Your task to perform on an android device: toggle improve location accuracy Image 0: 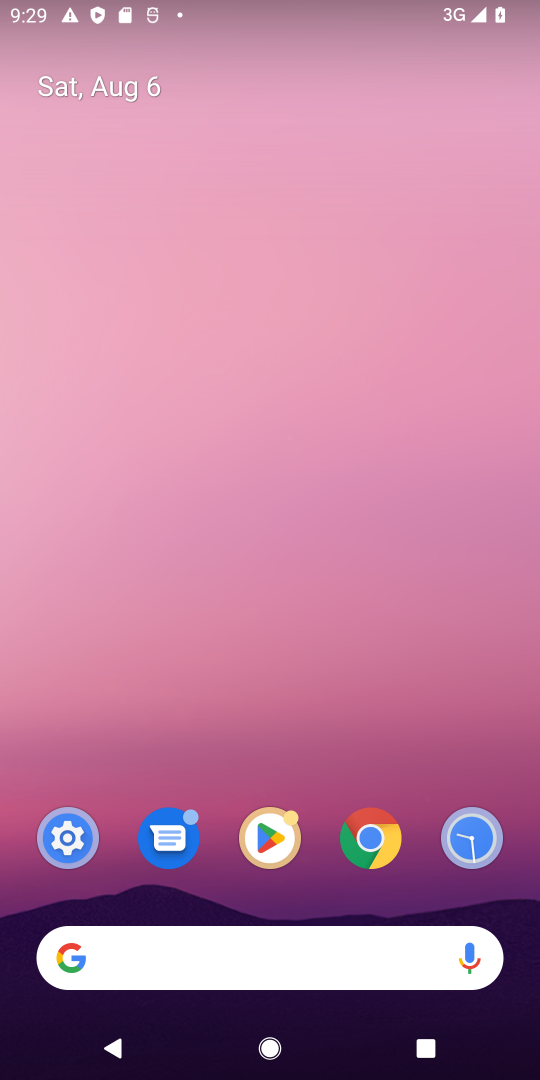
Step 0: drag from (231, 977) to (154, 164)
Your task to perform on an android device: toggle improve location accuracy Image 1: 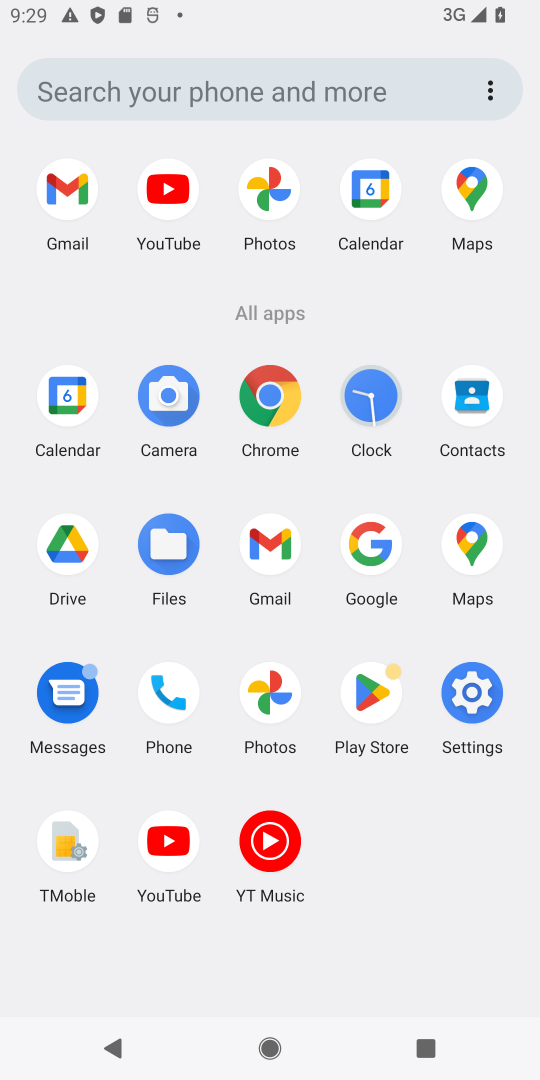
Step 1: click (456, 701)
Your task to perform on an android device: toggle improve location accuracy Image 2: 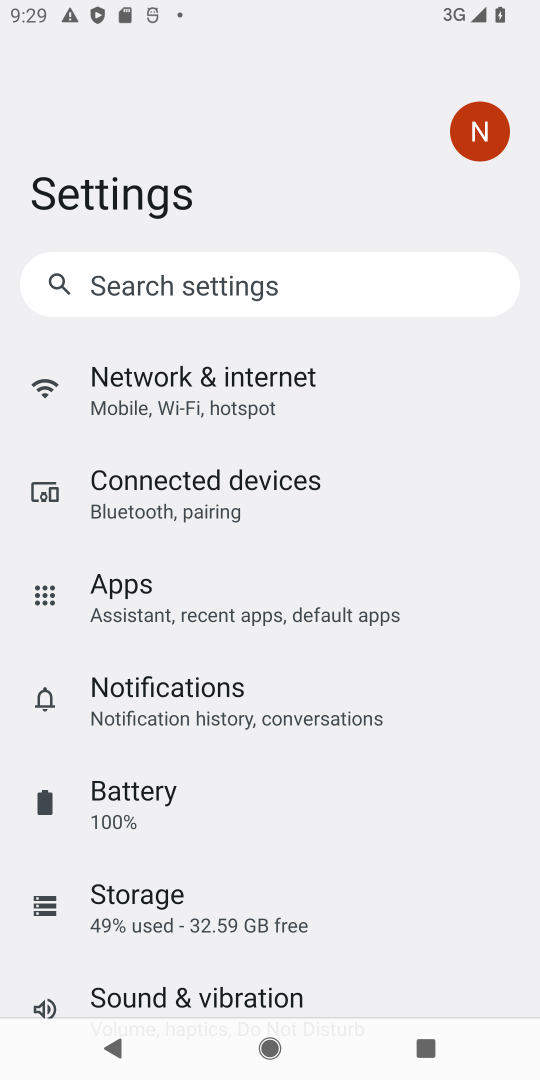
Step 2: drag from (239, 791) to (215, 290)
Your task to perform on an android device: toggle improve location accuracy Image 3: 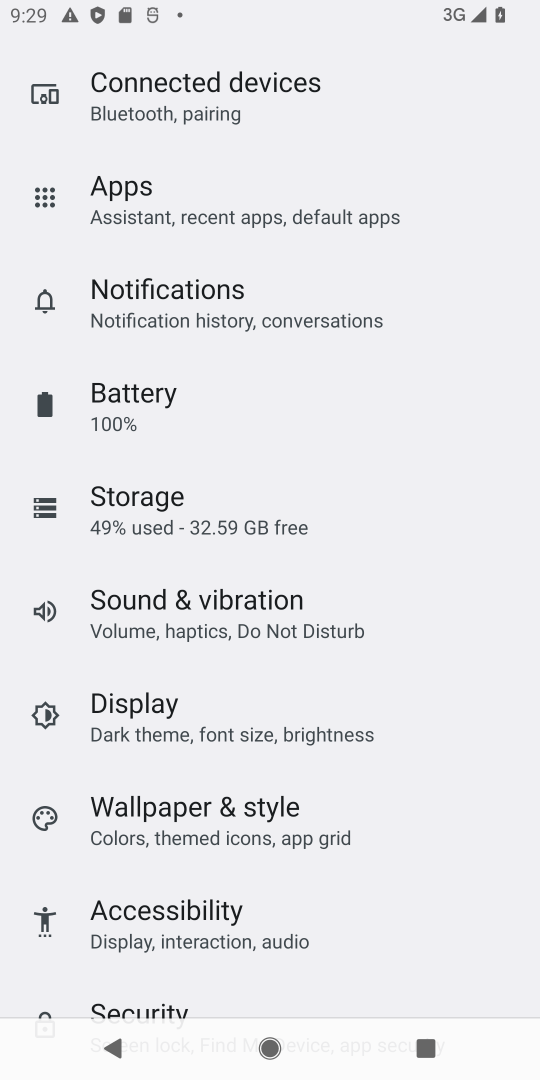
Step 3: drag from (171, 797) to (222, 325)
Your task to perform on an android device: toggle improve location accuracy Image 4: 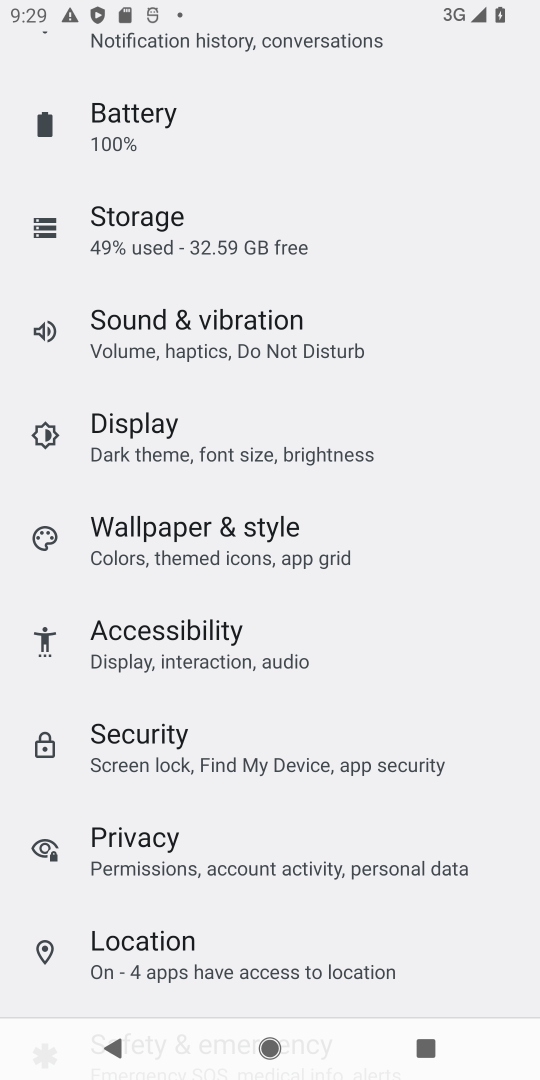
Step 4: click (152, 928)
Your task to perform on an android device: toggle improve location accuracy Image 5: 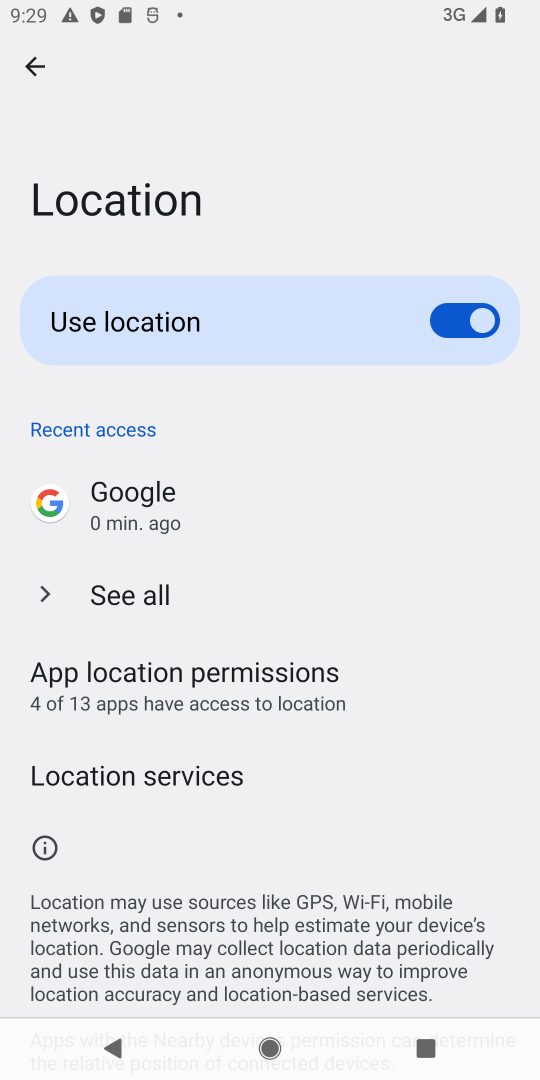
Step 5: drag from (142, 919) to (213, 397)
Your task to perform on an android device: toggle improve location accuracy Image 6: 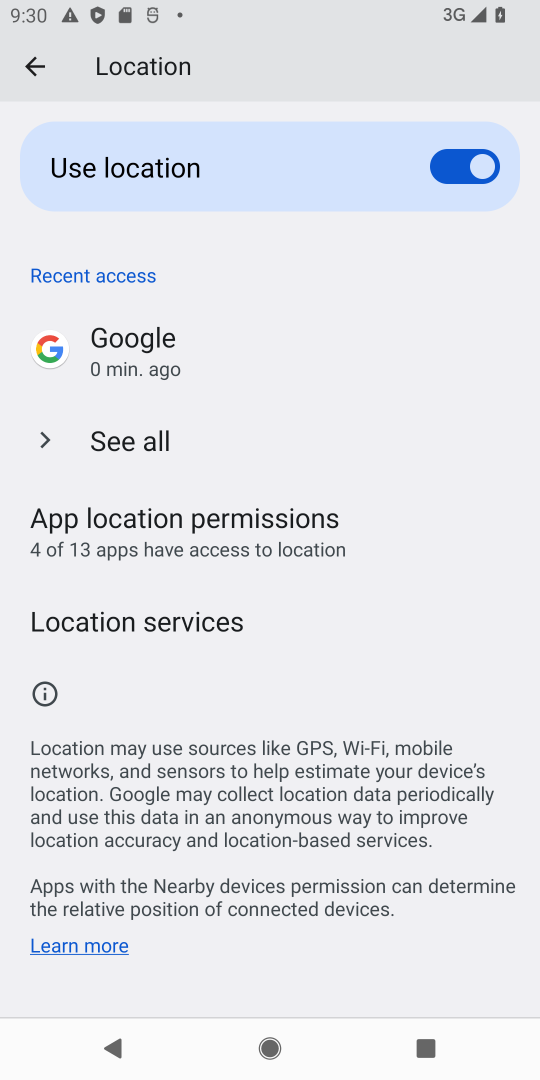
Step 6: click (91, 469)
Your task to perform on an android device: toggle improve location accuracy Image 7: 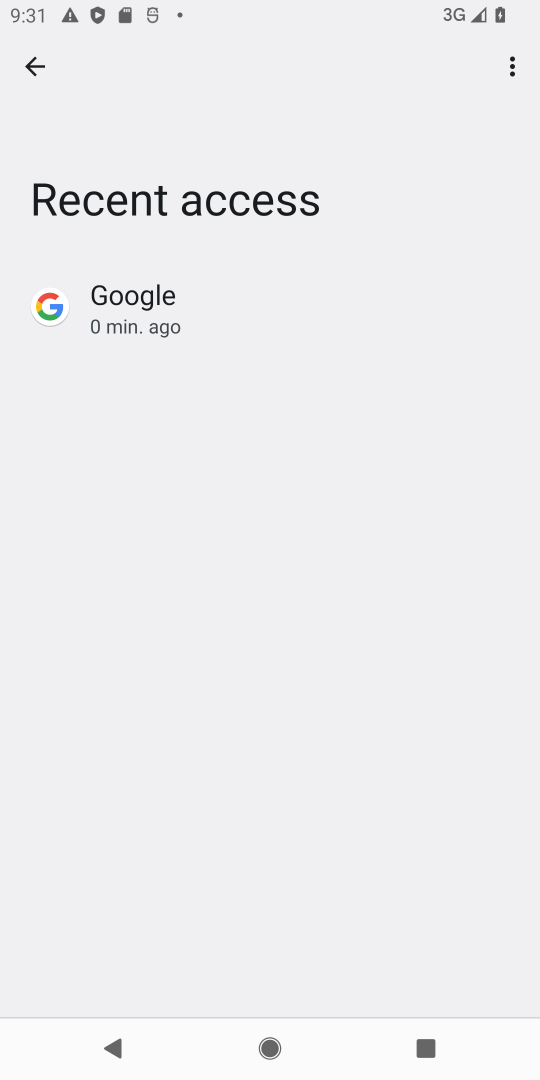
Step 7: press home button
Your task to perform on an android device: toggle improve location accuracy Image 8: 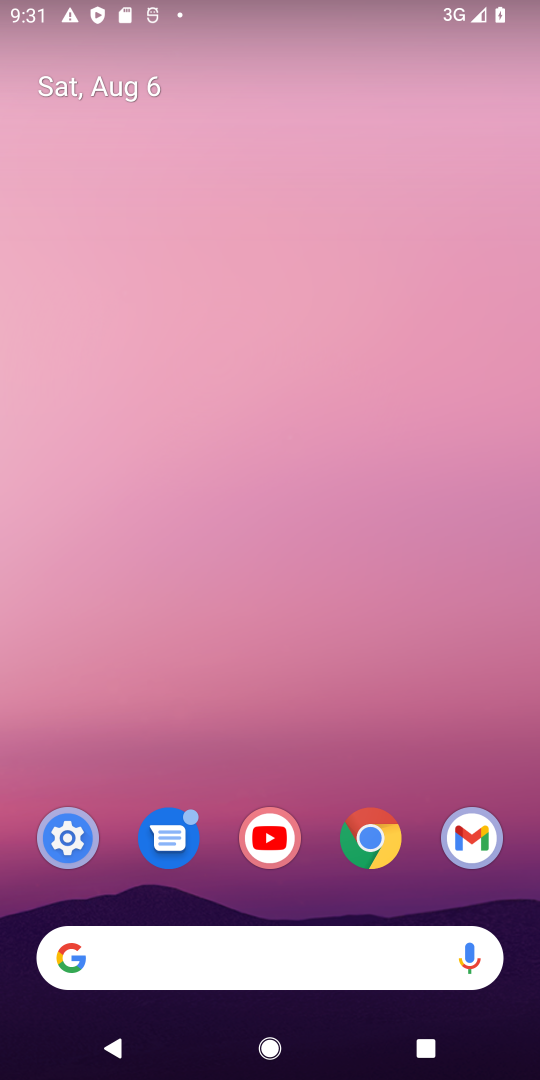
Step 8: drag from (407, 884) to (338, 43)
Your task to perform on an android device: toggle improve location accuracy Image 9: 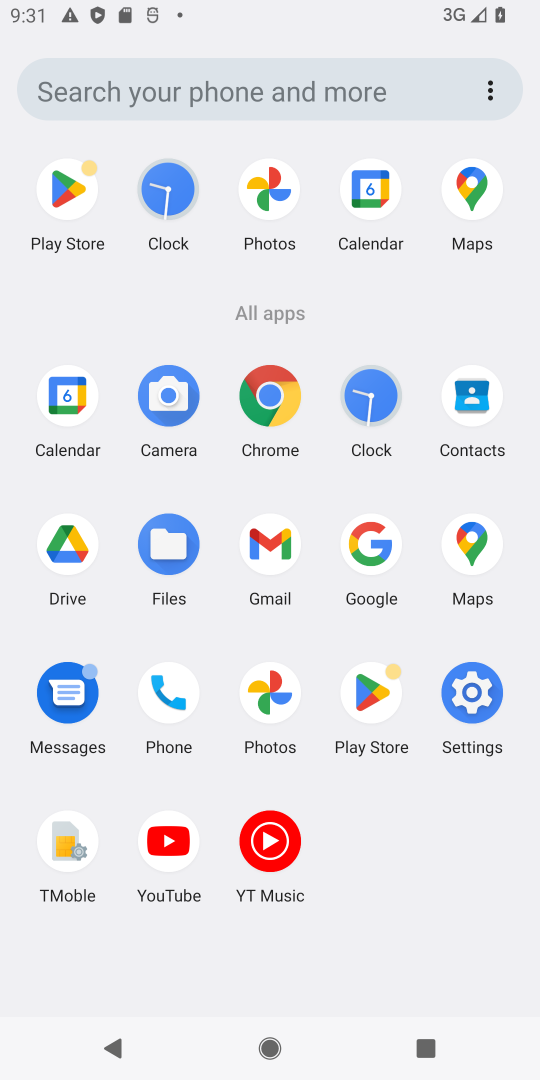
Step 9: click (457, 736)
Your task to perform on an android device: toggle improve location accuracy Image 10: 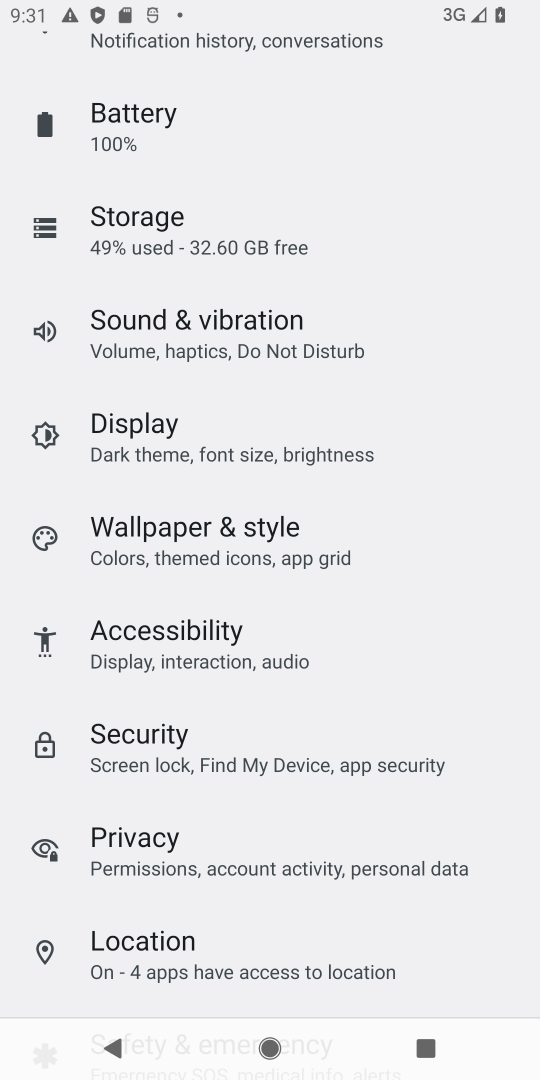
Step 10: drag from (228, 821) to (151, 134)
Your task to perform on an android device: toggle improve location accuracy Image 11: 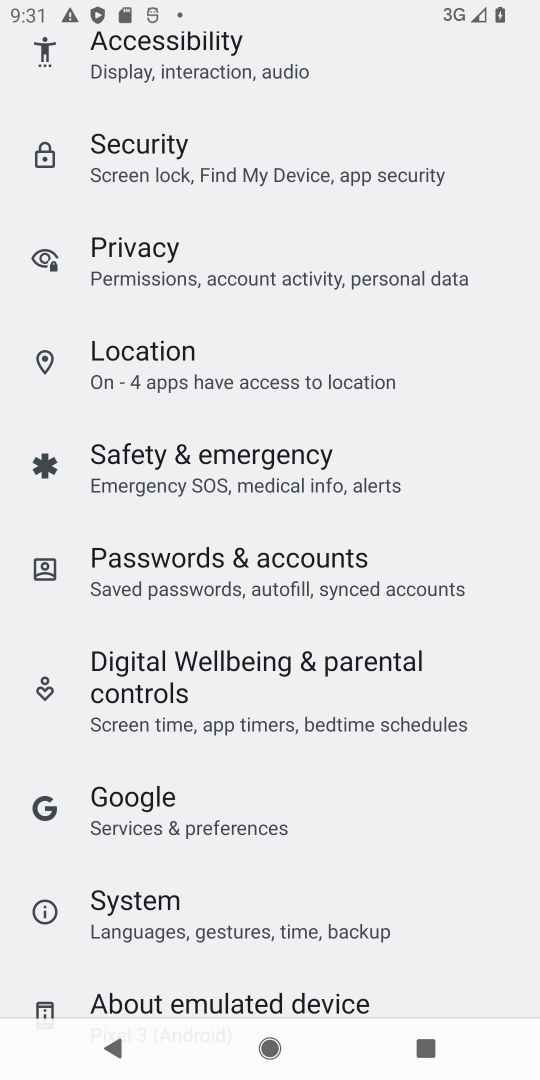
Step 11: click (147, 379)
Your task to perform on an android device: toggle improve location accuracy Image 12: 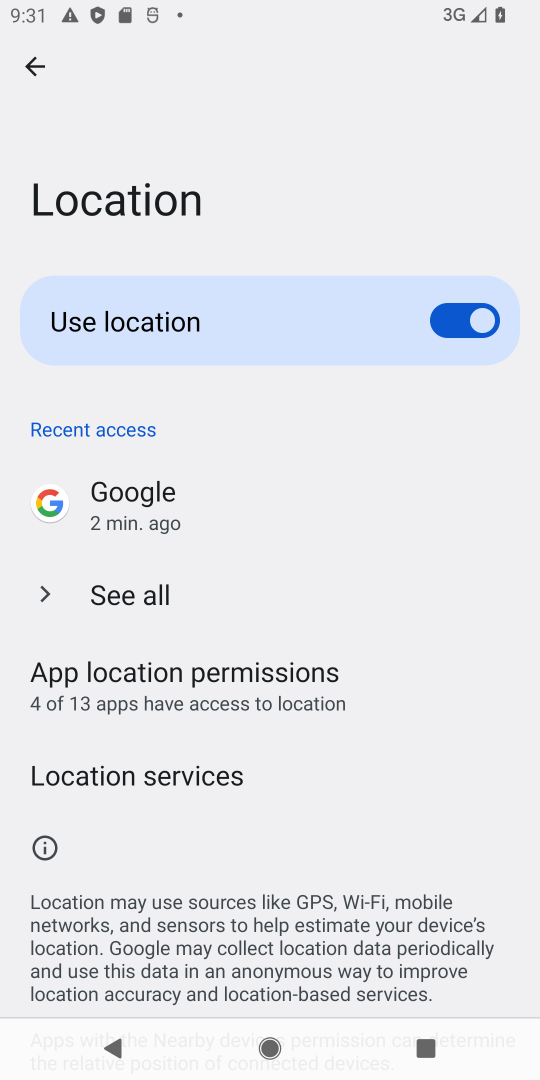
Step 12: task complete